Your task to perform on an android device: turn on improve location accuracy Image 0: 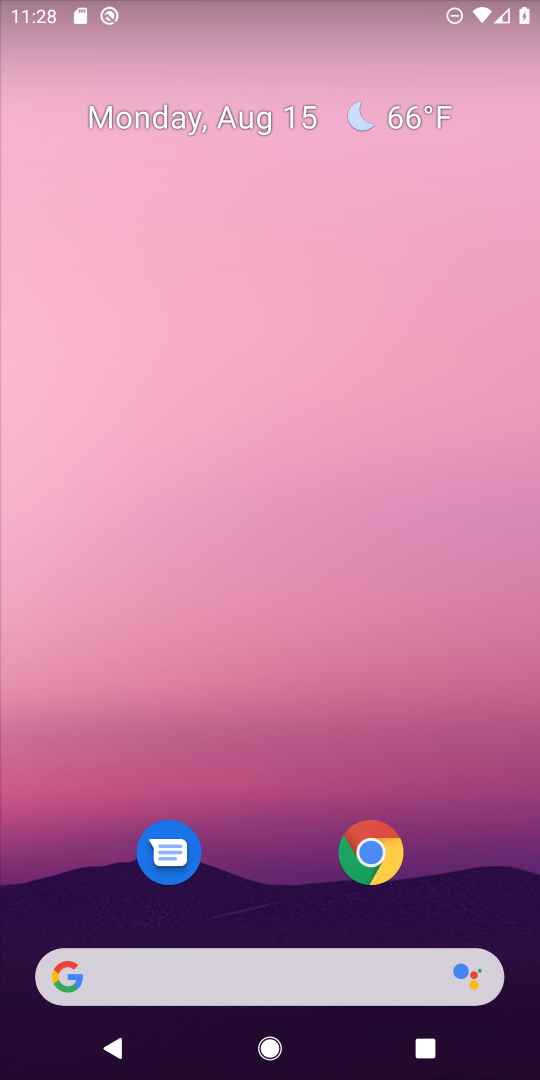
Step 0: drag from (267, 921) to (380, 288)
Your task to perform on an android device: turn on improve location accuracy Image 1: 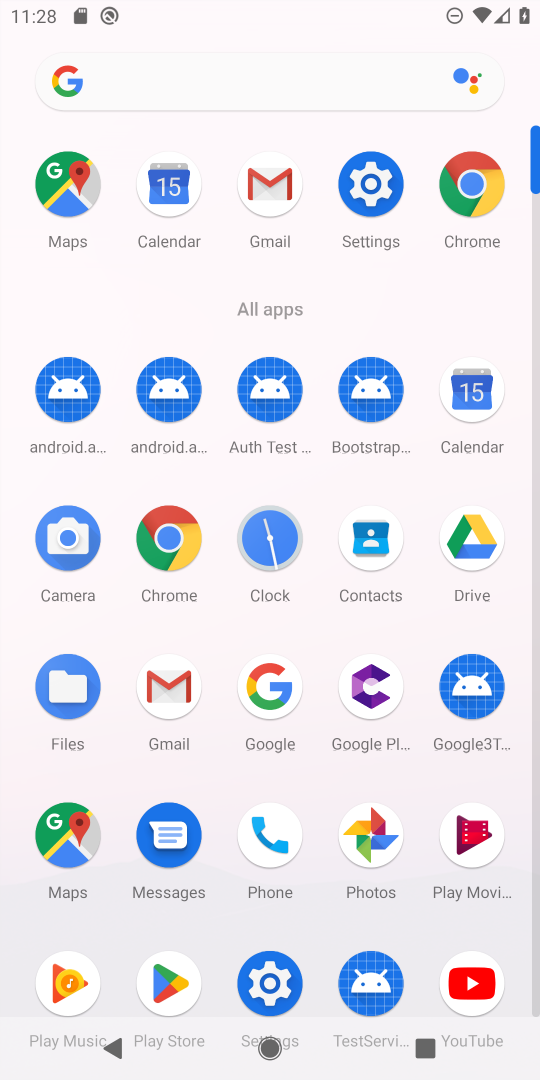
Step 1: click (362, 192)
Your task to perform on an android device: turn on improve location accuracy Image 2: 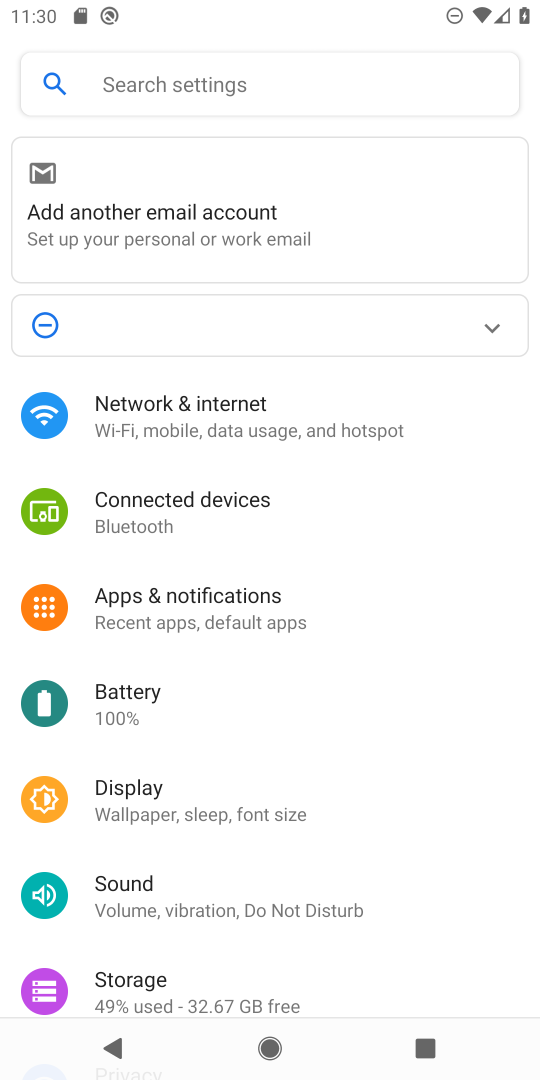
Step 2: drag from (175, 956) to (313, 323)
Your task to perform on an android device: turn on improve location accuracy Image 3: 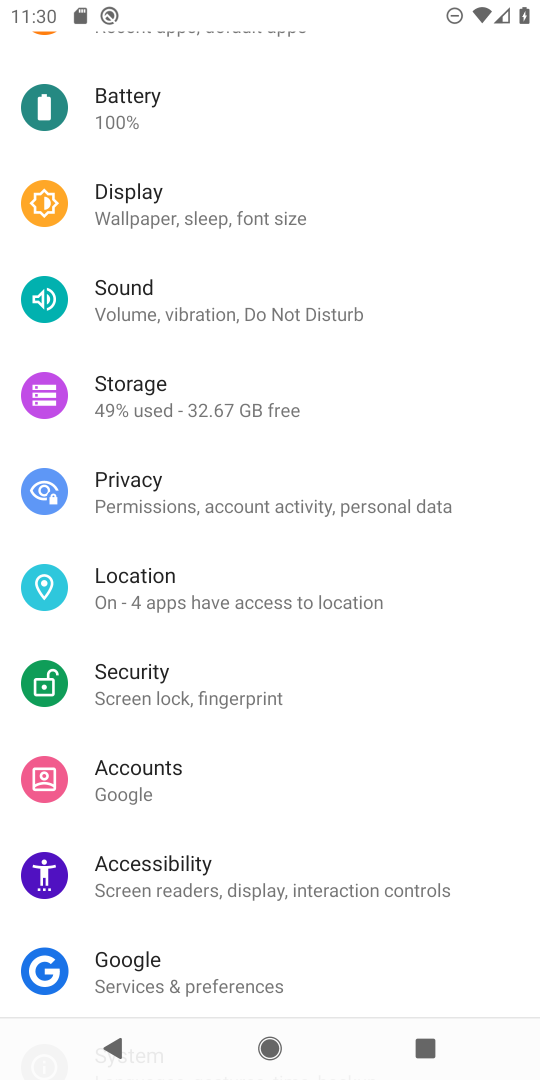
Step 3: click (222, 583)
Your task to perform on an android device: turn on improve location accuracy Image 4: 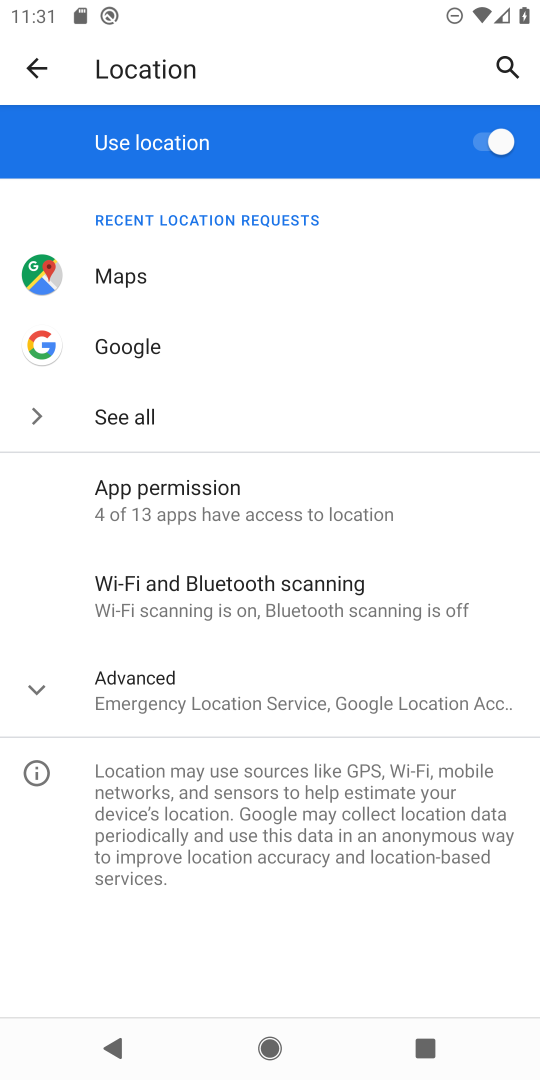
Step 4: click (211, 687)
Your task to perform on an android device: turn on improve location accuracy Image 5: 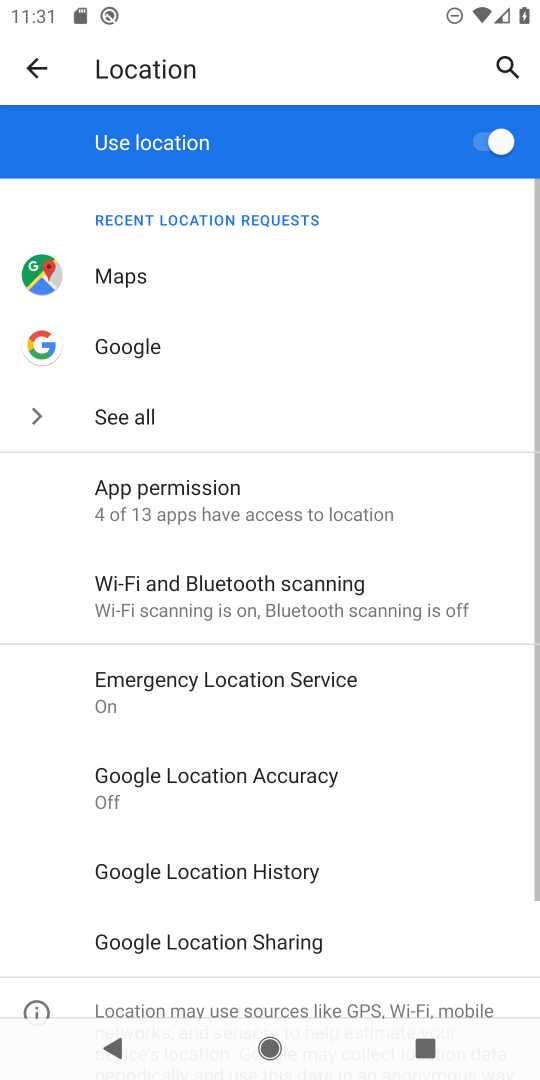
Step 5: click (298, 789)
Your task to perform on an android device: turn on improve location accuracy Image 6: 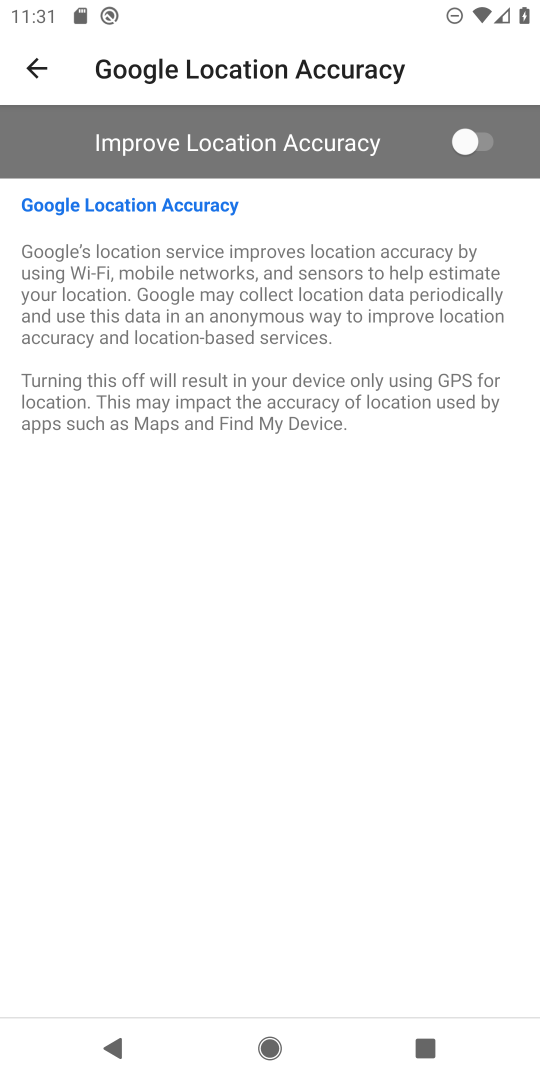
Step 6: click (470, 134)
Your task to perform on an android device: turn on improve location accuracy Image 7: 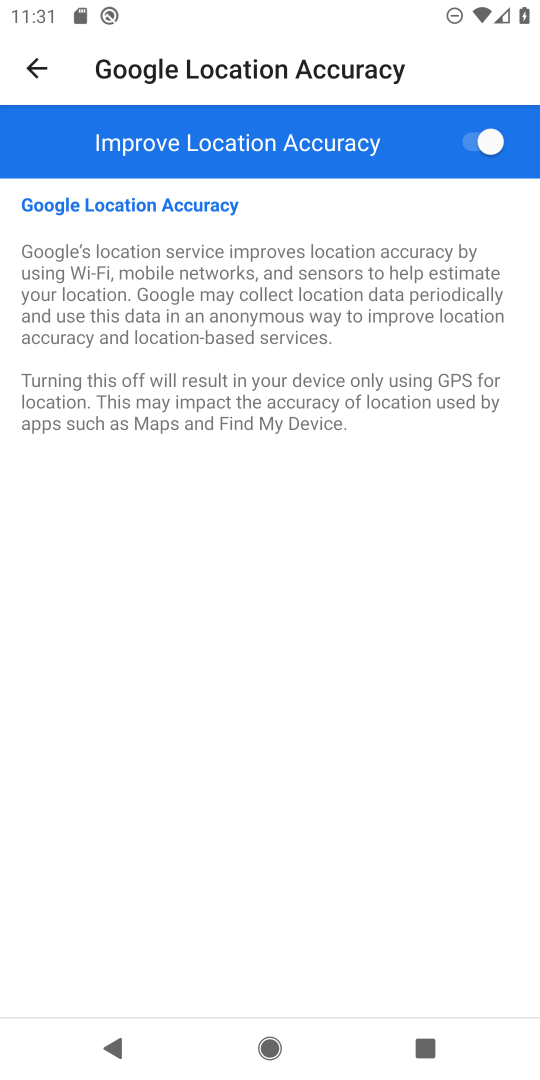
Step 7: task complete